Your task to perform on an android device: Go to display settings Image 0: 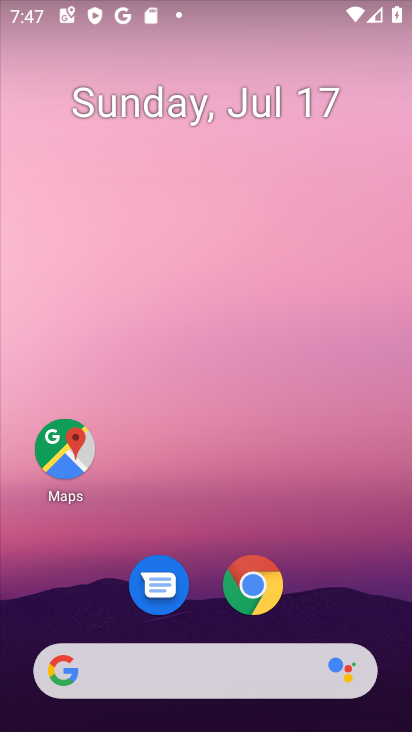
Step 0: drag from (321, 587) to (284, 10)
Your task to perform on an android device: Go to display settings Image 1: 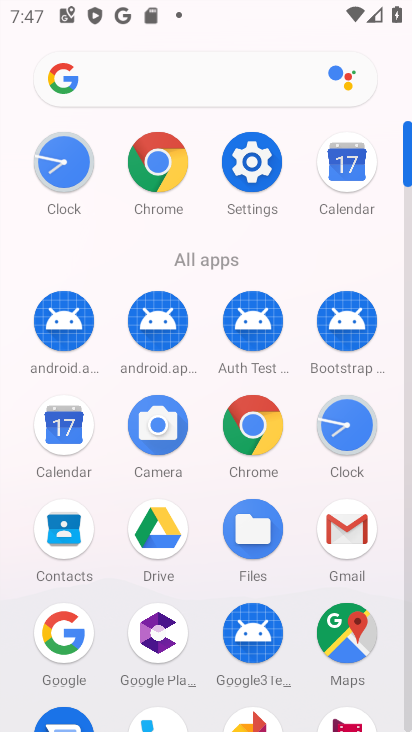
Step 1: click (259, 147)
Your task to perform on an android device: Go to display settings Image 2: 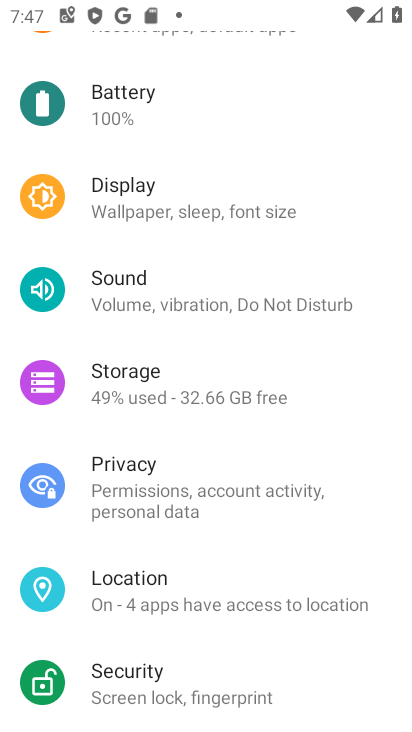
Step 2: click (237, 208)
Your task to perform on an android device: Go to display settings Image 3: 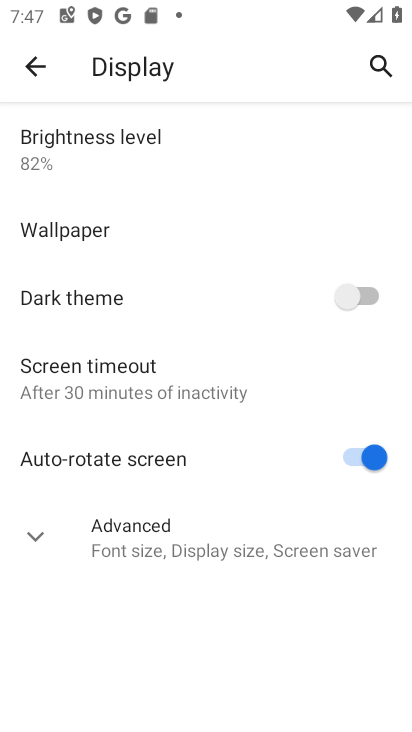
Step 3: task complete